Your task to perform on an android device: delete the emails in spam in the gmail app Image 0: 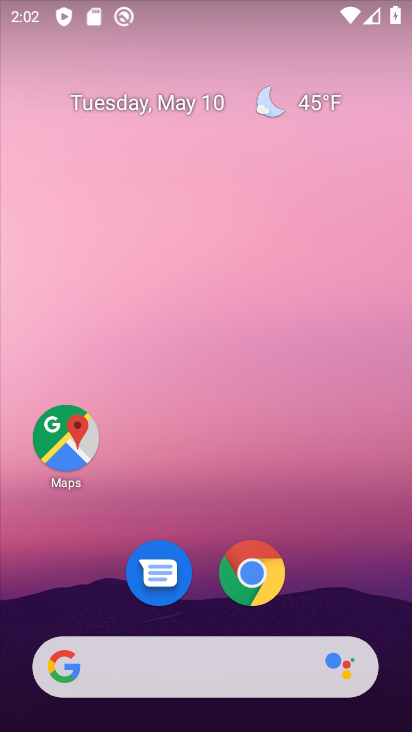
Step 0: drag from (208, 595) to (264, 158)
Your task to perform on an android device: delete the emails in spam in the gmail app Image 1: 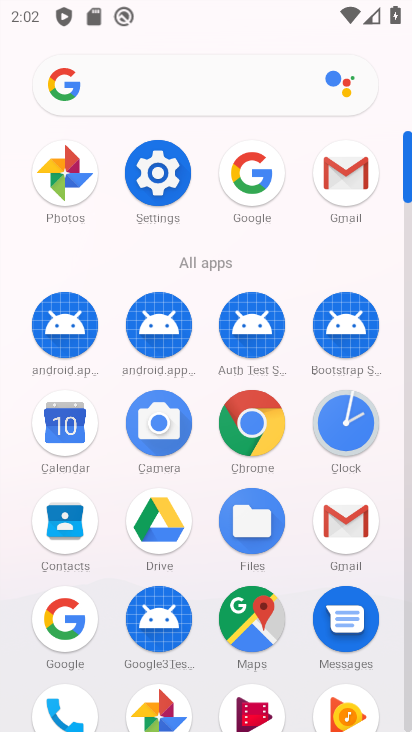
Step 1: click (341, 523)
Your task to perform on an android device: delete the emails in spam in the gmail app Image 2: 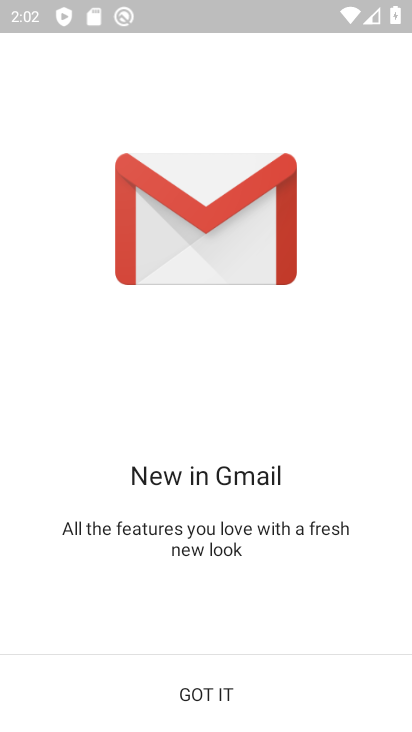
Step 2: click (167, 716)
Your task to perform on an android device: delete the emails in spam in the gmail app Image 3: 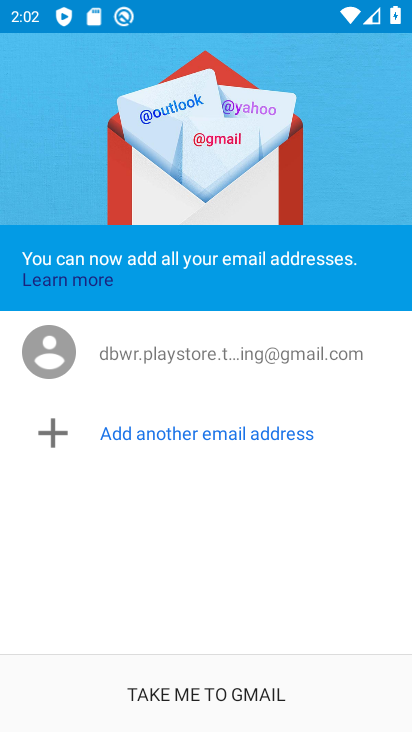
Step 3: click (167, 716)
Your task to perform on an android device: delete the emails in spam in the gmail app Image 4: 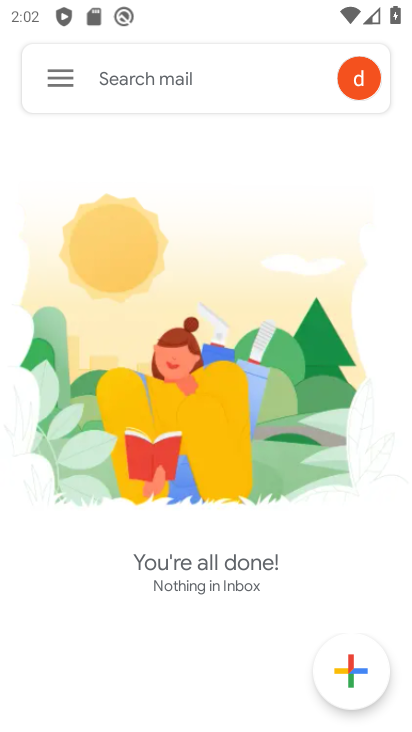
Step 4: click (58, 87)
Your task to perform on an android device: delete the emails in spam in the gmail app Image 5: 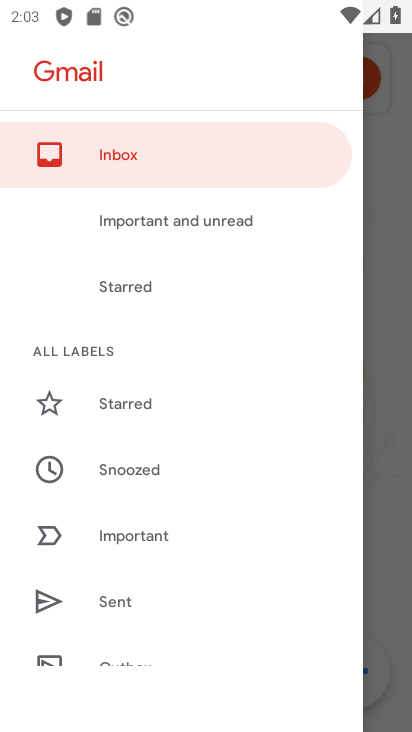
Step 5: drag from (136, 563) to (162, 374)
Your task to perform on an android device: delete the emails in spam in the gmail app Image 6: 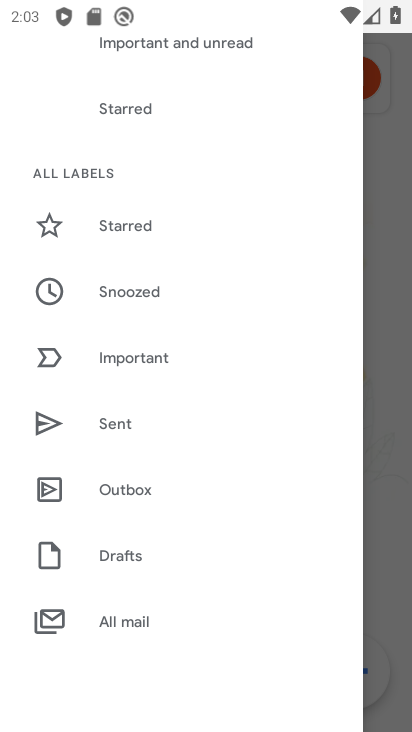
Step 6: drag from (165, 530) to (216, 308)
Your task to perform on an android device: delete the emails in spam in the gmail app Image 7: 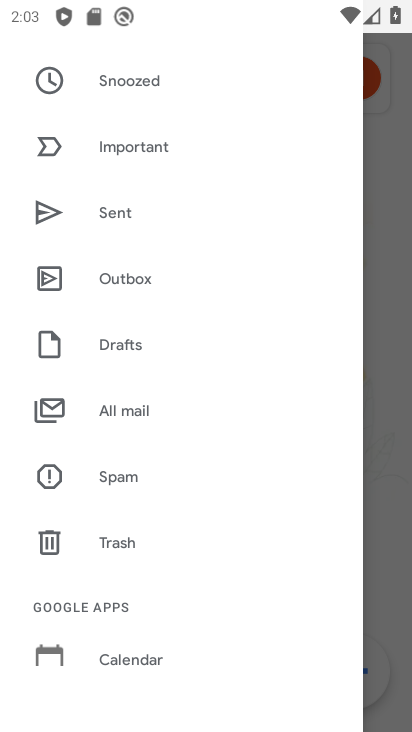
Step 7: click (154, 485)
Your task to perform on an android device: delete the emails in spam in the gmail app Image 8: 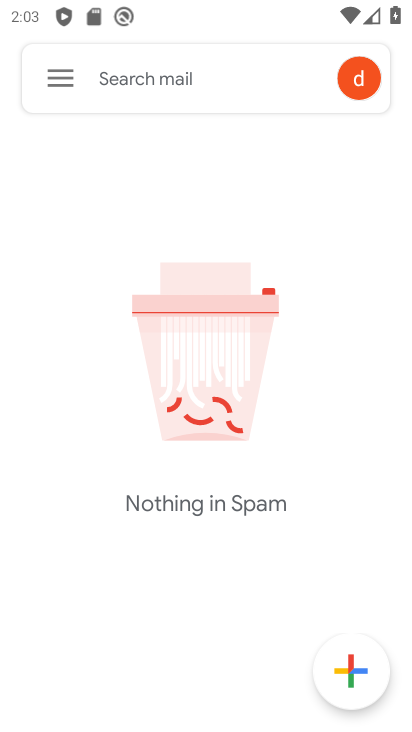
Step 8: task complete